Your task to perform on an android device: see sites visited before in the chrome app Image 0: 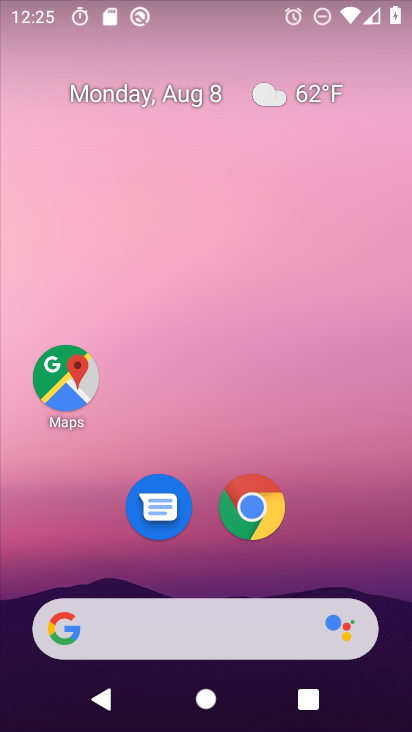
Step 0: drag from (374, 517) to (294, 28)
Your task to perform on an android device: see sites visited before in the chrome app Image 1: 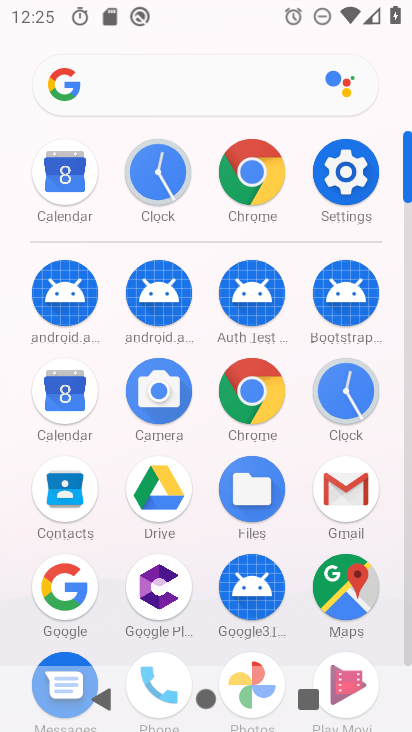
Step 1: click (257, 396)
Your task to perform on an android device: see sites visited before in the chrome app Image 2: 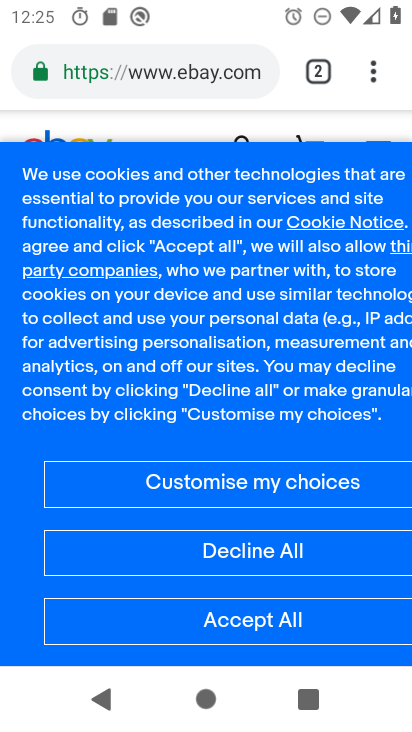
Step 2: task complete